Your task to perform on an android device: toggle data saver in the chrome app Image 0: 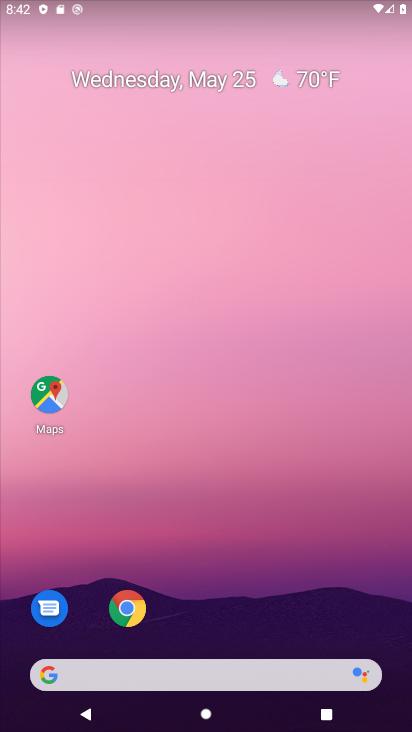
Step 0: click (133, 611)
Your task to perform on an android device: toggle data saver in the chrome app Image 1: 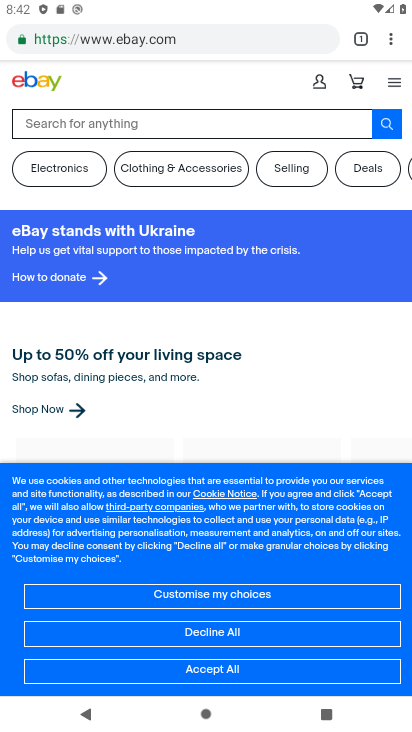
Step 1: click (391, 38)
Your task to perform on an android device: toggle data saver in the chrome app Image 2: 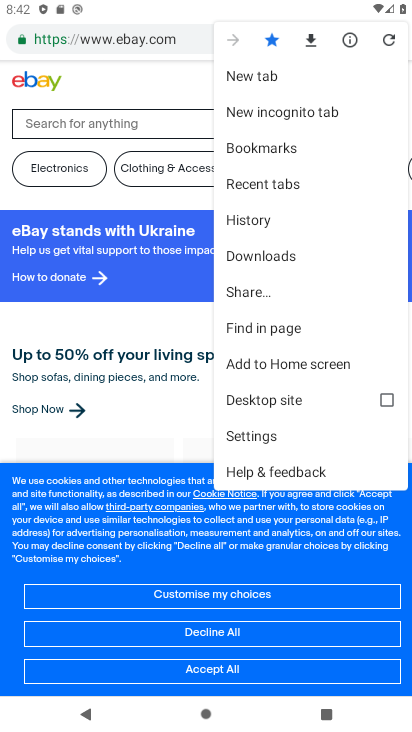
Step 2: click (265, 441)
Your task to perform on an android device: toggle data saver in the chrome app Image 3: 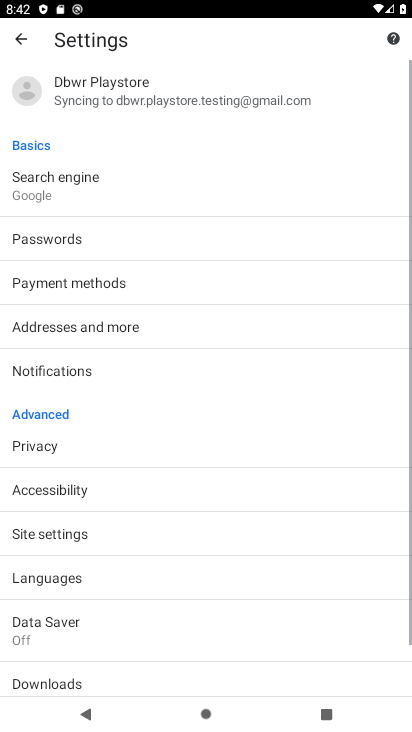
Step 3: click (101, 632)
Your task to perform on an android device: toggle data saver in the chrome app Image 4: 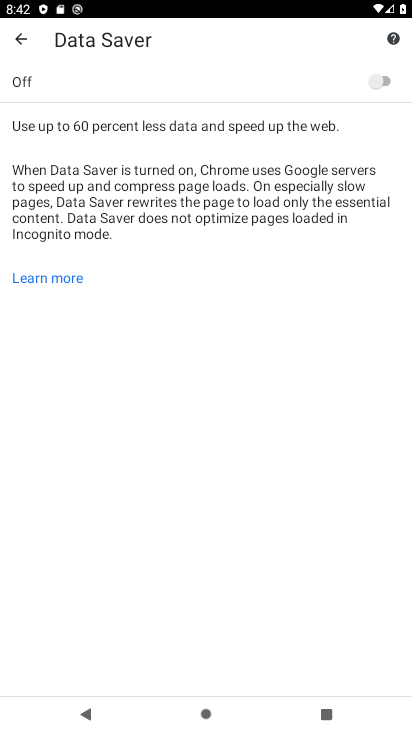
Step 4: click (377, 75)
Your task to perform on an android device: toggle data saver in the chrome app Image 5: 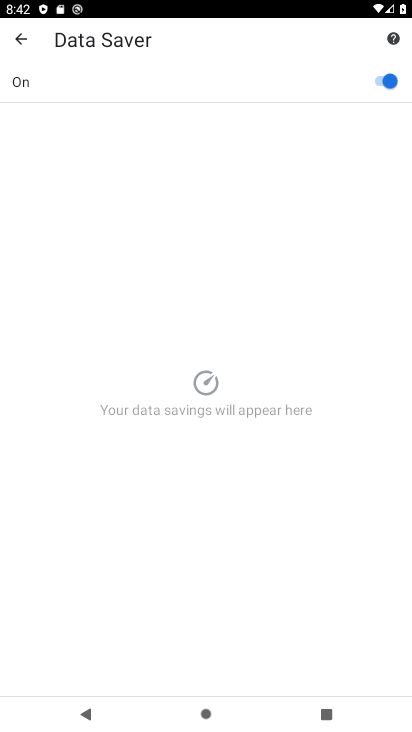
Step 5: task complete